Your task to perform on an android device: Search for "lenovo thinkpad" on newegg.com, select the first entry, add it to the cart, then select checkout. Image 0: 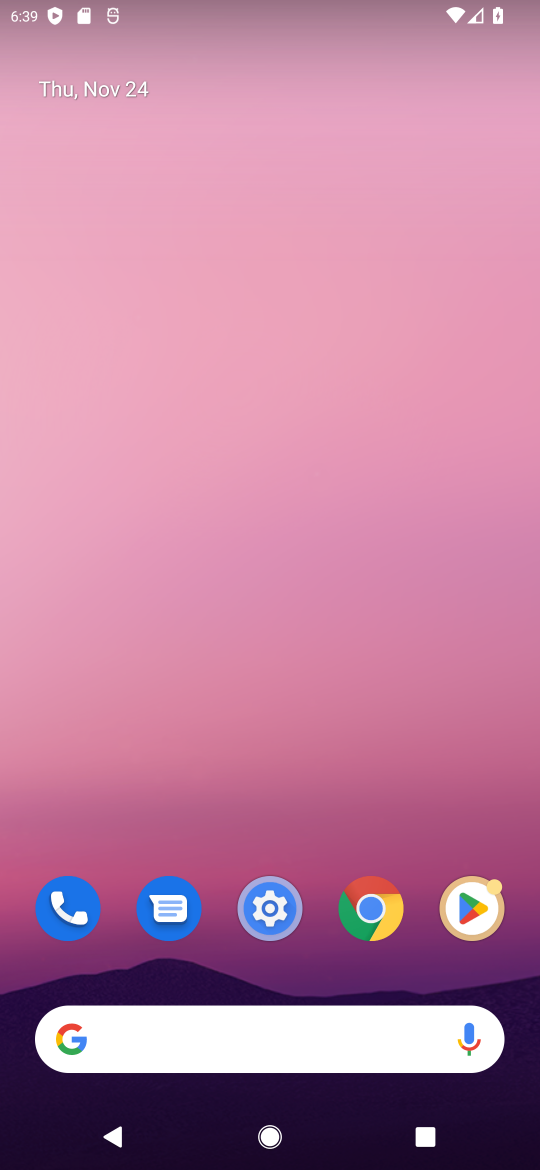
Step 0: click (260, 1034)
Your task to perform on an android device: Search for "lenovo thinkpad" on newegg.com, select the first entry, add it to the cart, then select checkout. Image 1: 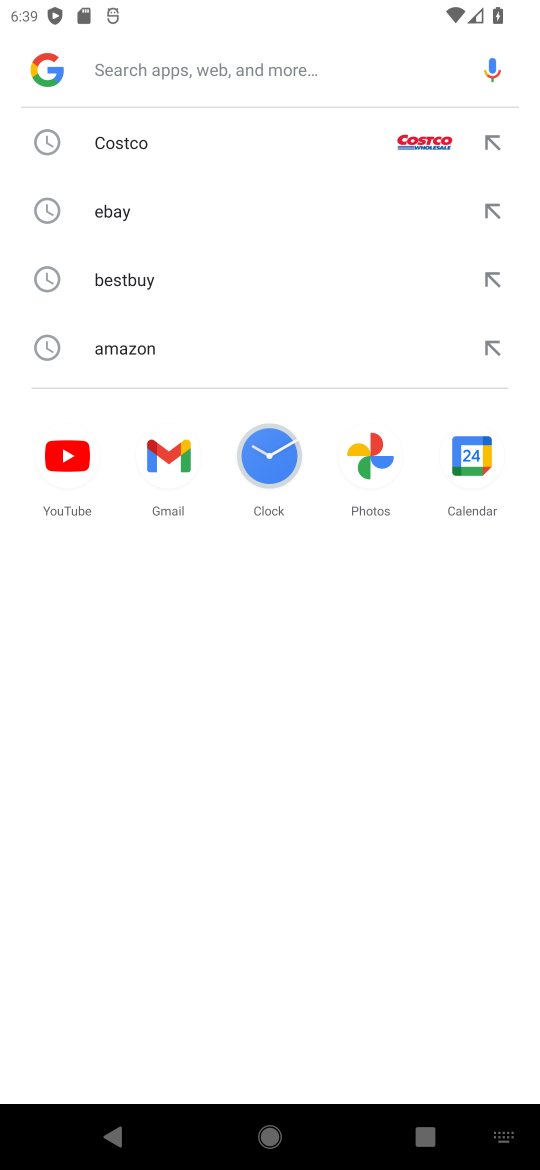
Step 1: type "newegg.com"
Your task to perform on an android device: Search for "lenovo thinkpad" on newegg.com, select the first entry, add it to the cart, then select checkout. Image 2: 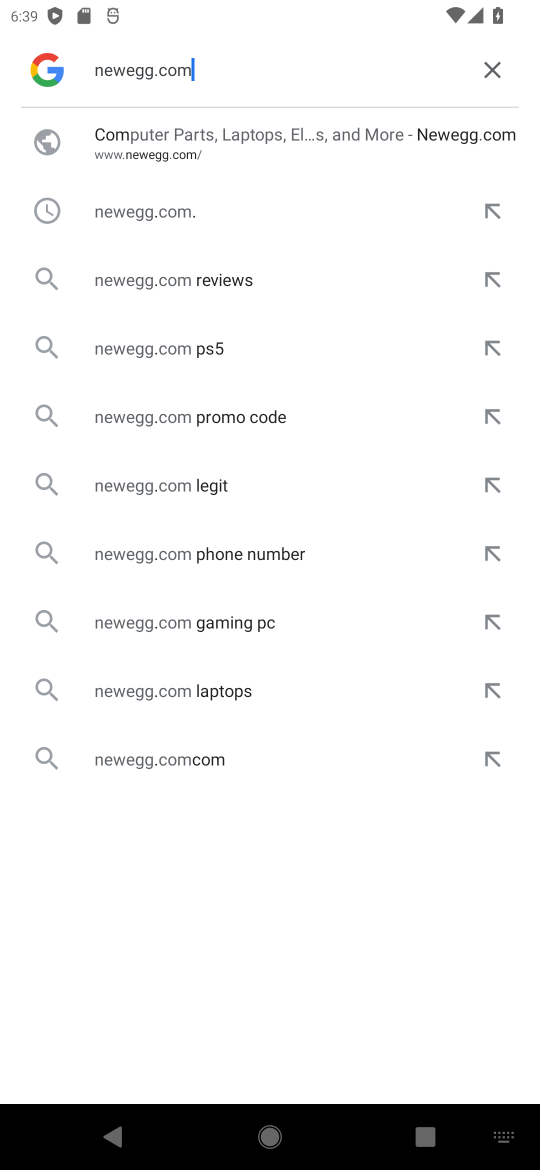
Step 2: click (133, 163)
Your task to perform on an android device: Search for "lenovo thinkpad" on newegg.com, select the first entry, add it to the cart, then select checkout. Image 3: 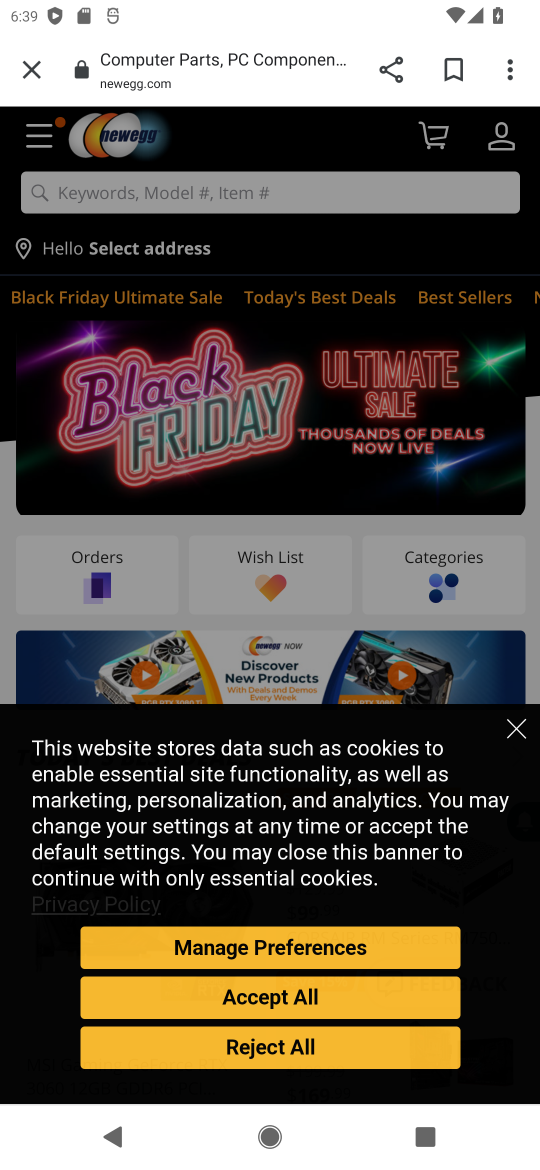
Step 3: click (311, 192)
Your task to perform on an android device: Search for "lenovo thinkpad" on newegg.com, select the first entry, add it to the cart, then select checkout. Image 4: 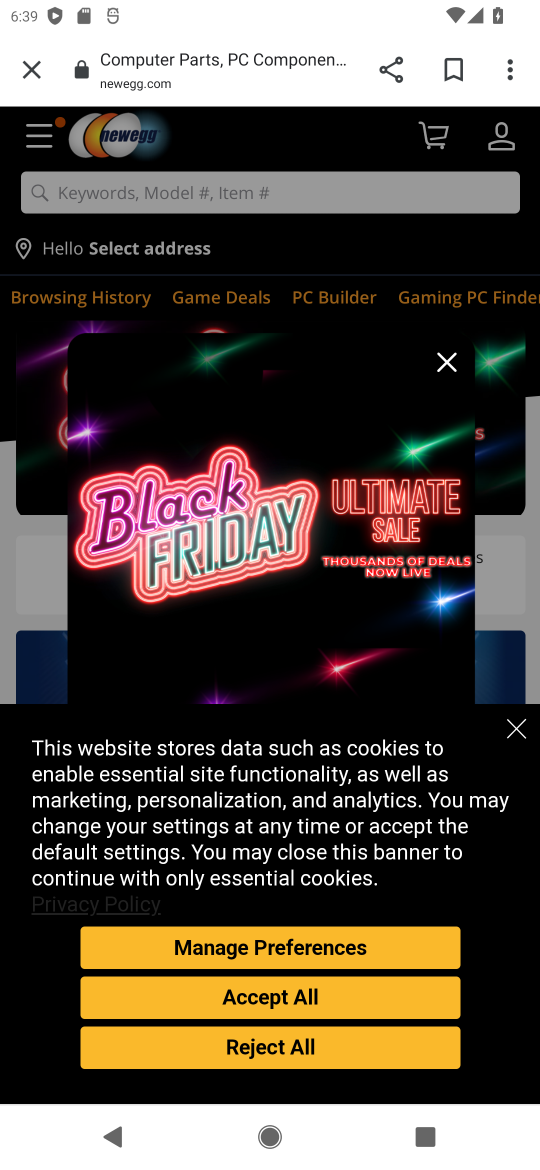
Step 4: type "lenovo think pad"
Your task to perform on an android device: Search for "lenovo thinkpad" on newegg.com, select the first entry, add it to the cart, then select checkout. Image 5: 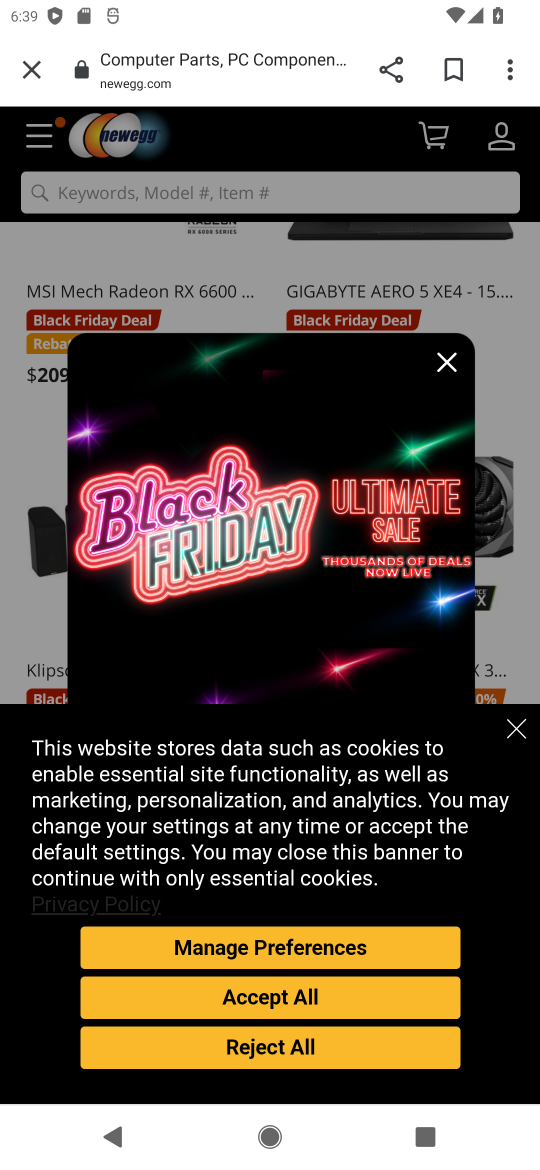
Step 5: click (431, 364)
Your task to perform on an android device: Search for "lenovo thinkpad" on newegg.com, select the first entry, add it to the cart, then select checkout. Image 6: 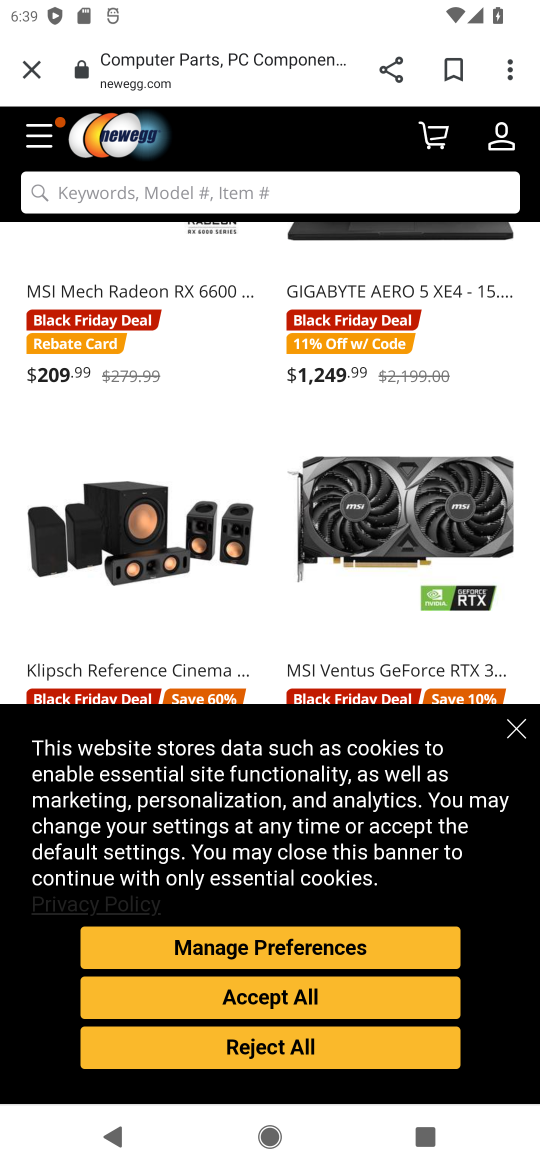
Step 6: click (528, 737)
Your task to perform on an android device: Search for "lenovo thinkpad" on newegg.com, select the first entry, add it to the cart, then select checkout. Image 7: 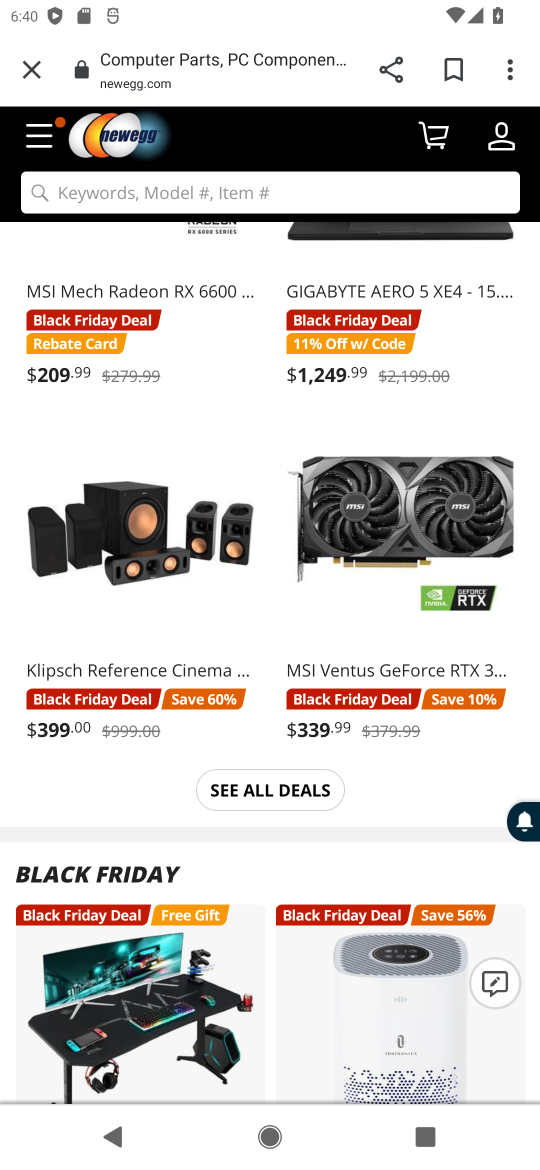
Step 7: task complete